Your task to perform on an android device: see tabs open on other devices in the chrome app Image 0: 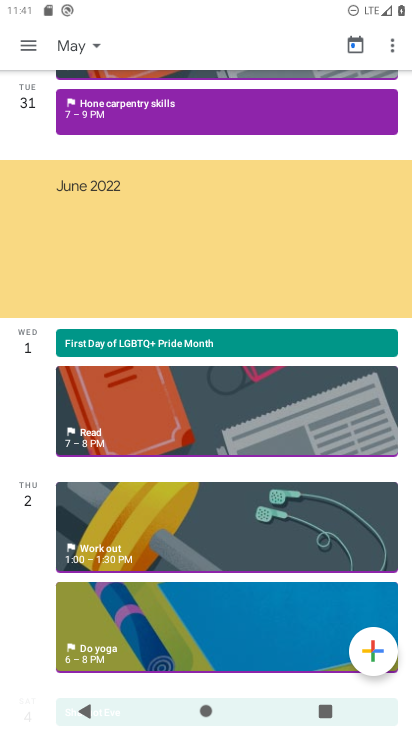
Step 0: press home button
Your task to perform on an android device: see tabs open on other devices in the chrome app Image 1: 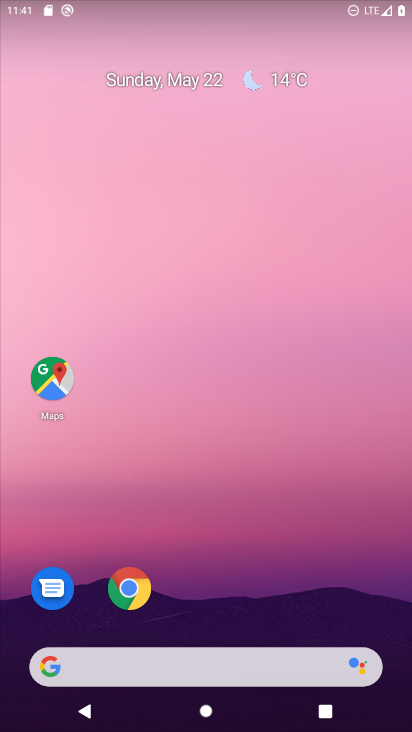
Step 1: click (142, 582)
Your task to perform on an android device: see tabs open on other devices in the chrome app Image 2: 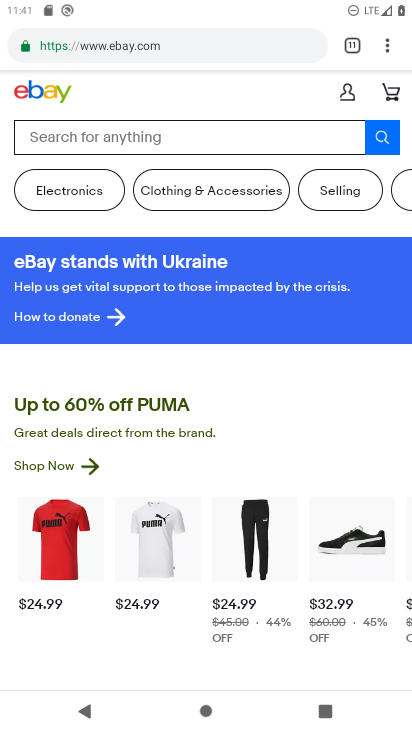
Step 2: click (384, 47)
Your task to perform on an android device: see tabs open on other devices in the chrome app Image 3: 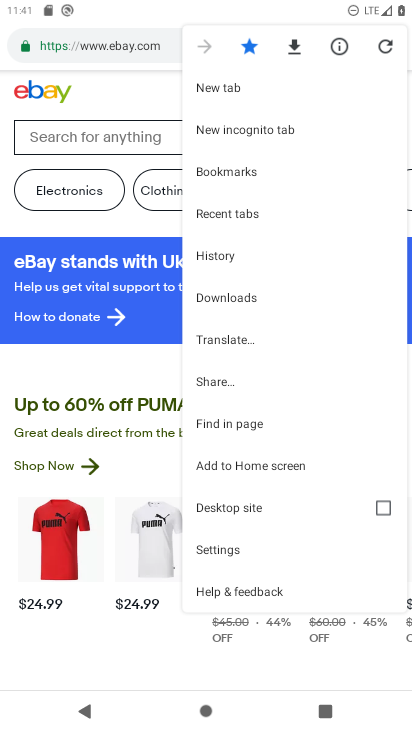
Step 3: click (239, 205)
Your task to perform on an android device: see tabs open on other devices in the chrome app Image 4: 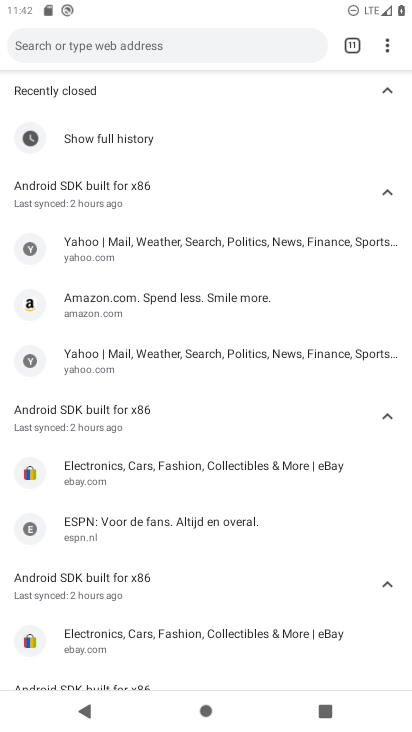
Step 4: task complete